Your task to perform on an android device: Open wifi settings Image 0: 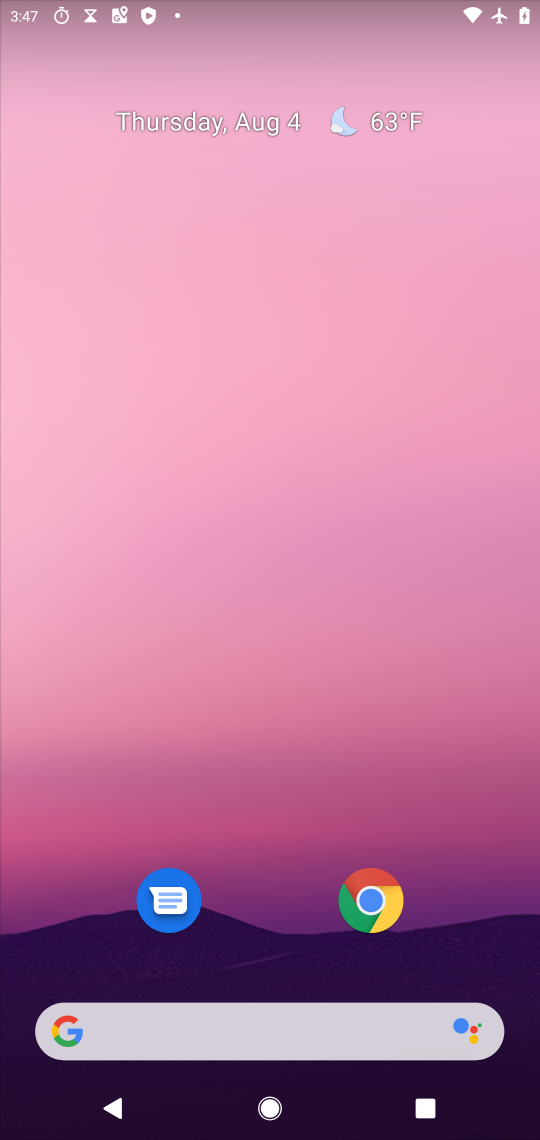
Step 0: click (533, 867)
Your task to perform on an android device: Open wifi settings Image 1: 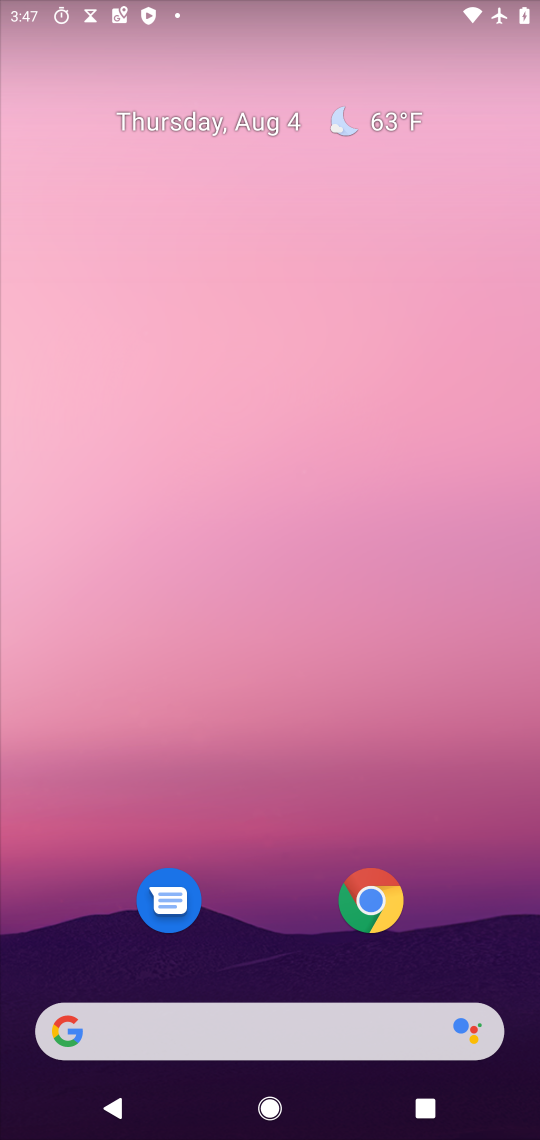
Step 1: drag from (501, 911) to (255, 19)
Your task to perform on an android device: Open wifi settings Image 2: 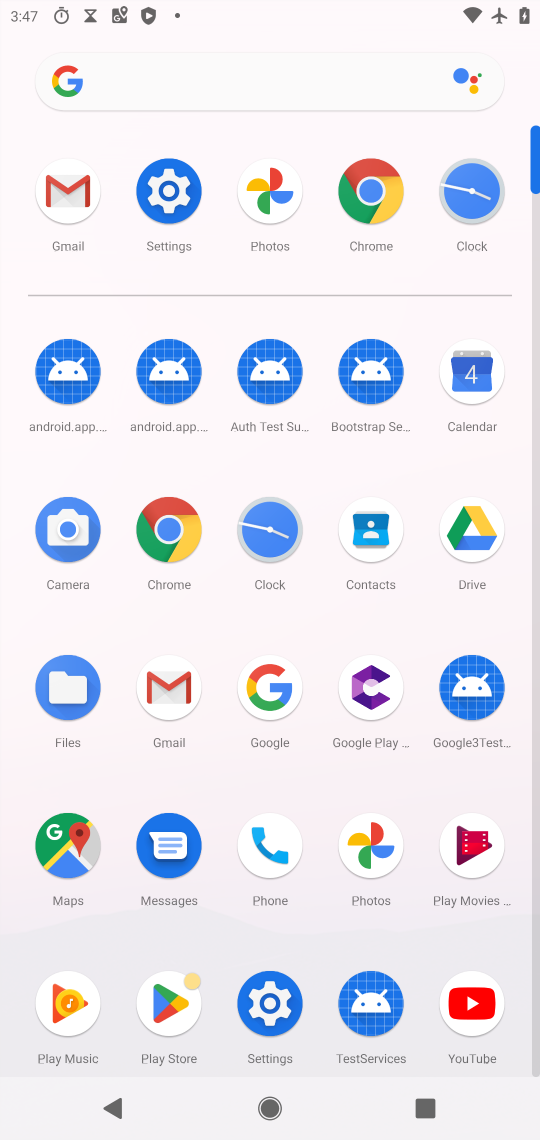
Step 2: click (162, 198)
Your task to perform on an android device: Open wifi settings Image 3: 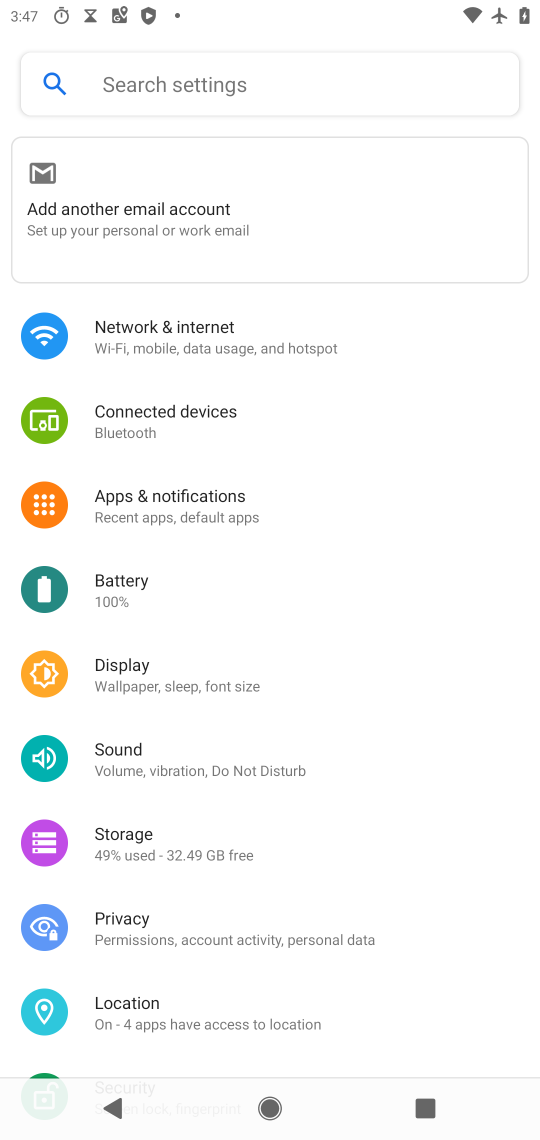
Step 3: click (274, 330)
Your task to perform on an android device: Open wifi settings Image 4: 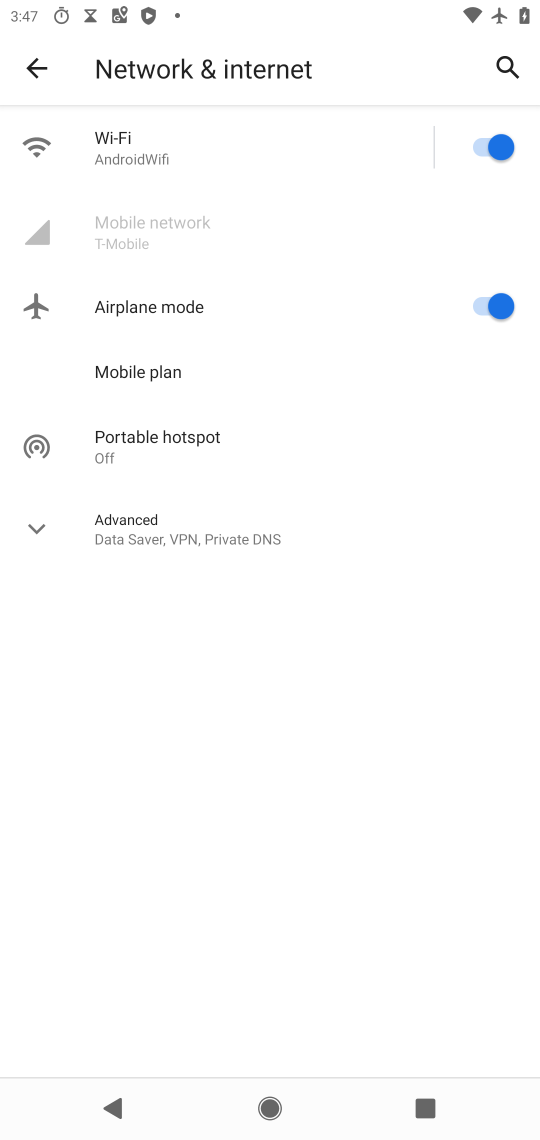
Step 4: click (110, 146)
Your task to perform on an android device: Open wifi settings Image 5: 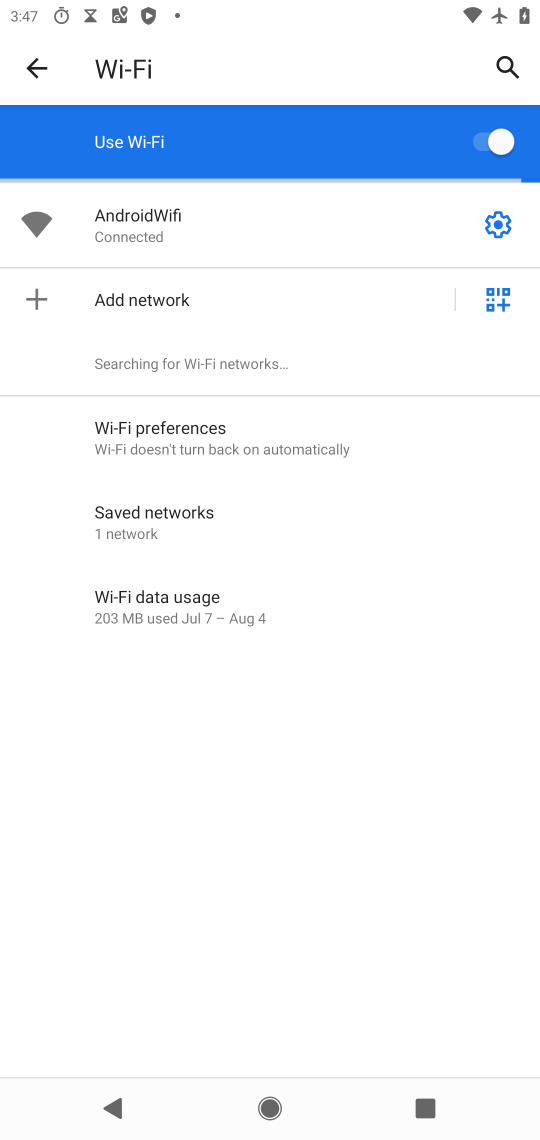
Step 5: task complete